Your task to perform on an android device: Open Chrome and go to the settings page Image 0: 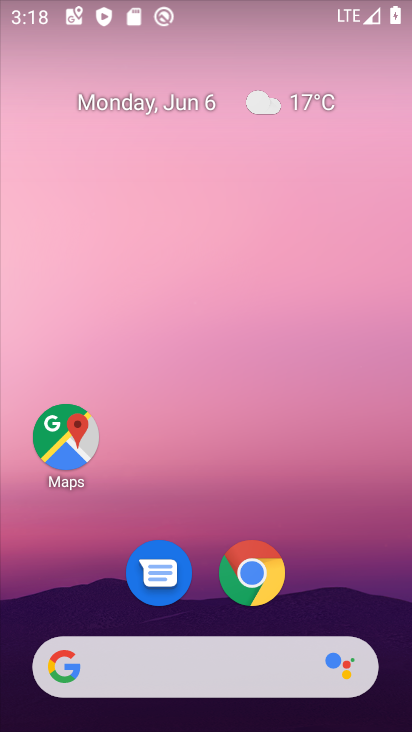
Step 0: drag from (355, 610) to (355, 243)
Your task to perform on an android device: Open Chrome and go to the settings page Image 1: 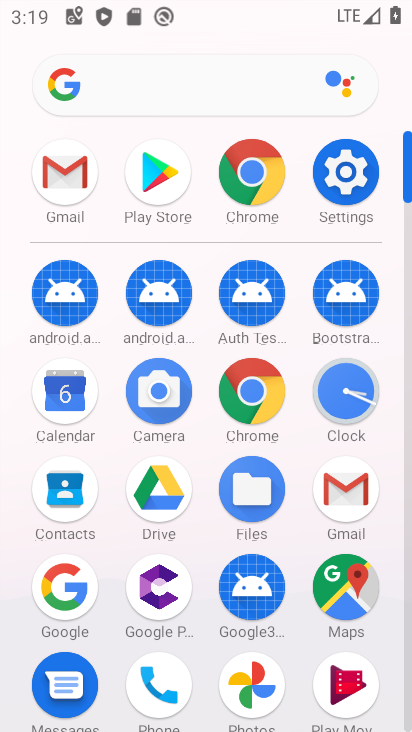
Step 1: click (271, 393)
Your task to perform on an android device: Open Chrome and go to the settings page Image 2: 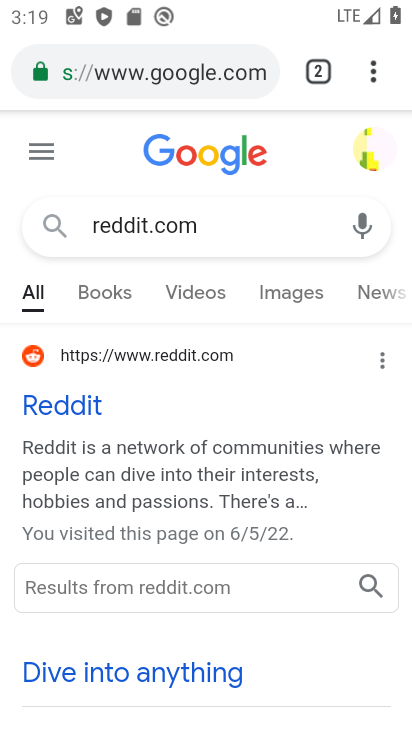
Step 2: click (376, 77)
Your task to perform on an android device: Open Chrome and go to the settings page Image 3: 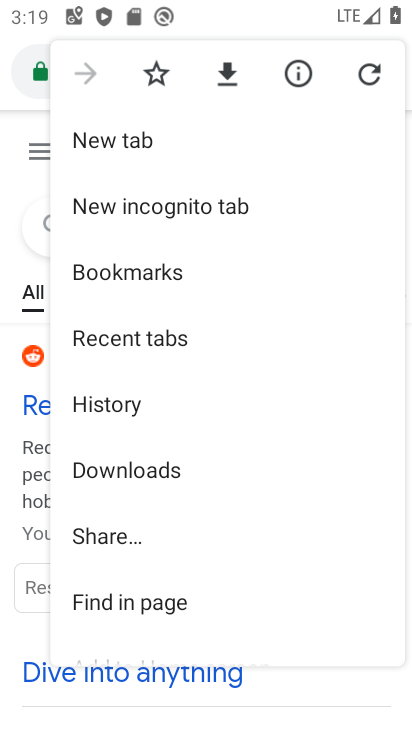
Step 3: drag from (303, 483) to (310, 409)
Your task to perform on an android device: Open Chrome and go to the settings page Image 4: 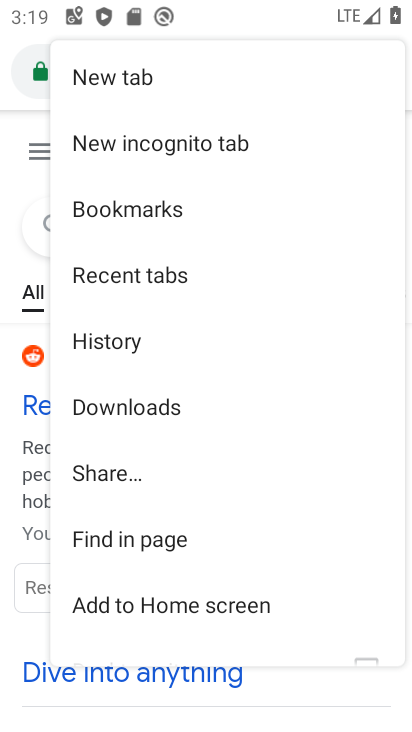
Step 4: drag from (300, 481) to (303, 403)
Your task to perform on an android device: Open Chrome and go to the settings page Image 5: 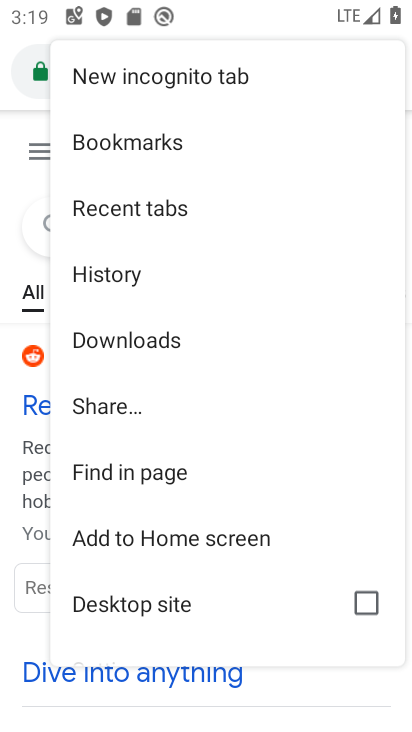
Step 5: drag from (292, 482) to (299, 403)
Your task to perform on an android device: Open Chrome and go to the settings page Image 6: 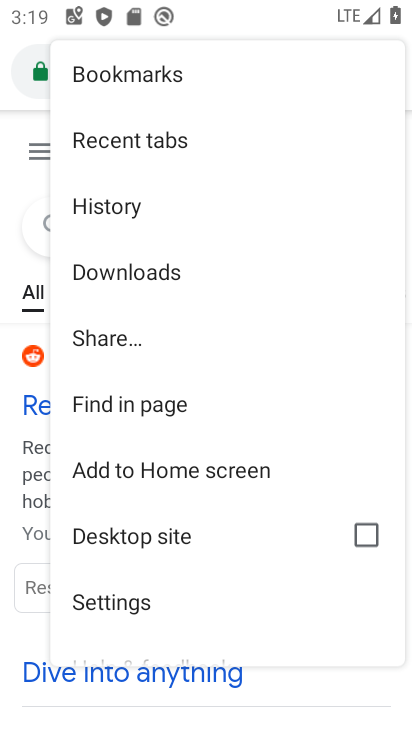
Step 6: drag from (297, 485) to (298, 359)
Your task to perform on an android device: Open Chrome and go to the settings page Image 7: 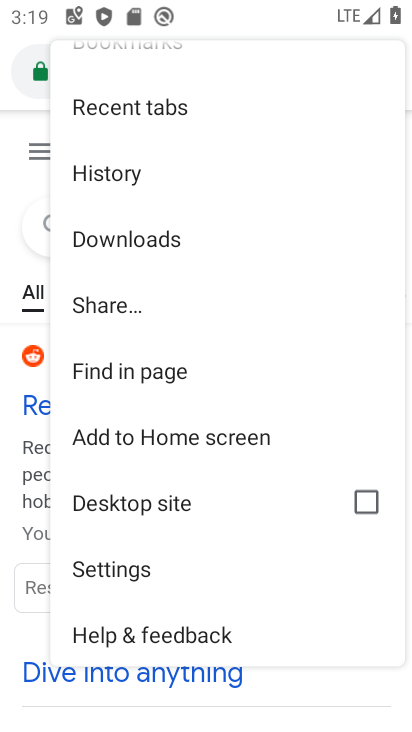
Step 7: click (173, 581)
Your task to perform on an android device: Open Chrome and go to the settings page Image 8: 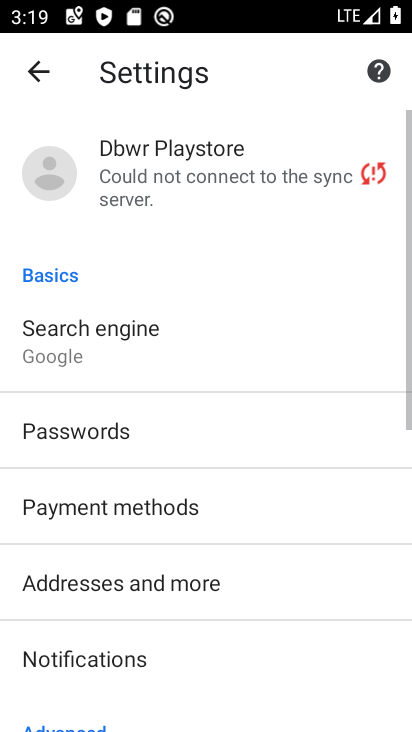
Step 8: task complete